Your task to perform on an android device: stop showing notifications on the lock screen Image 0: 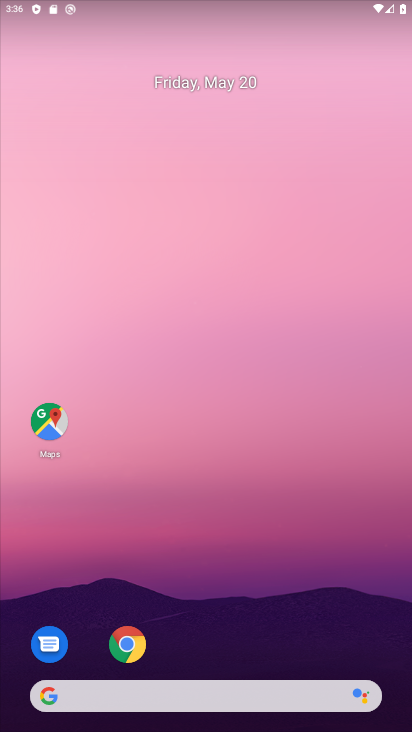
Step 0: drag from (276, 572) to (343, 142)
Your task to perform on an android device: stop showing notifications on the lock screen Image 1: 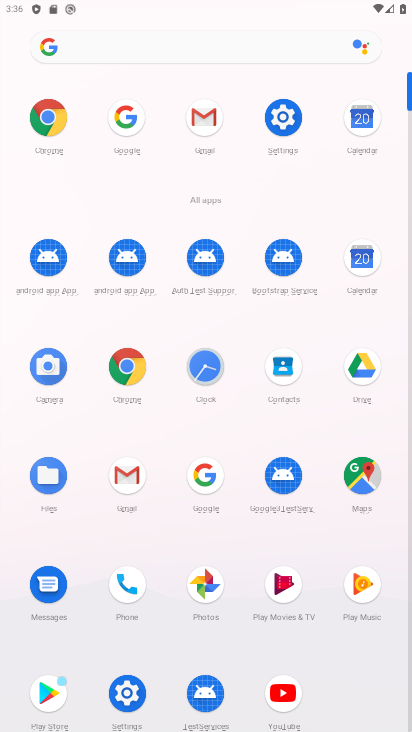
Step 1: click (289, 126)
Your task to perform on an android device: stop showing notifications on the lock screen Image 2: 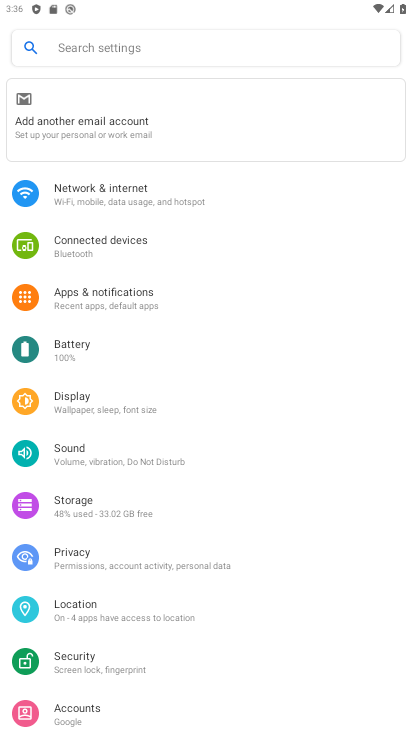
Step 2: click (119, 311)
Your task to perform on an android device: stop showing notifications on the lock screen Image 3: 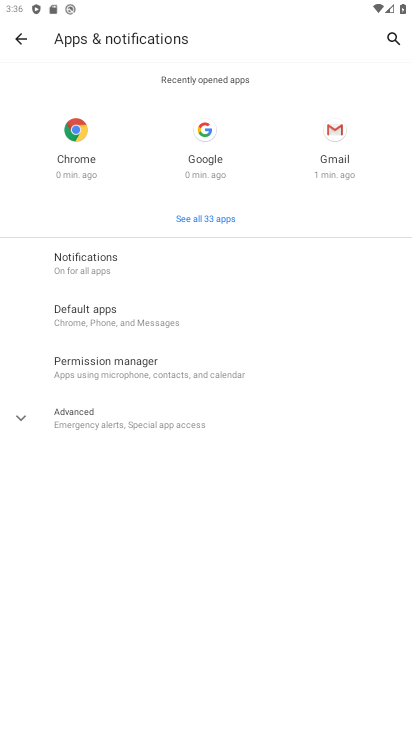
Step 3: click (146, 261)
Your task to perform on an android device: stop showing notifications on the lock screen Image 4: 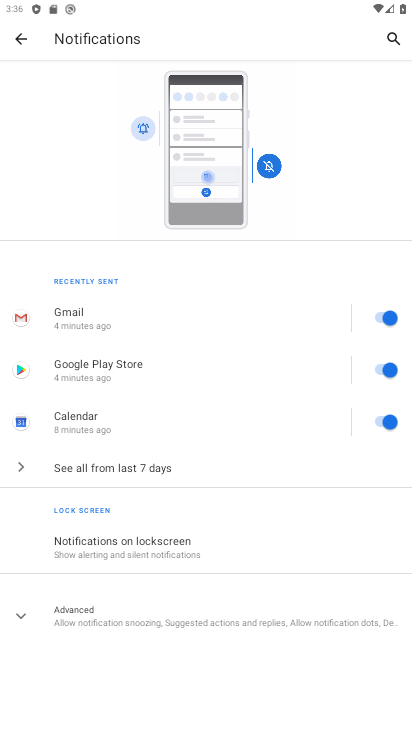
Step 4: click (168, 547)
Your task to perform on an android device: stop showing notifications on the lock screen Image 5: 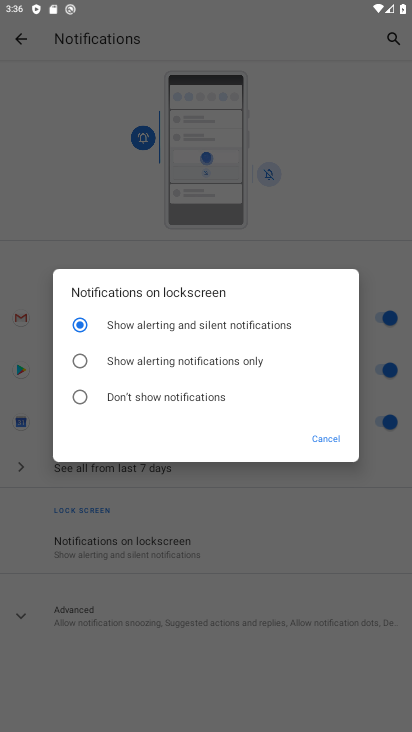
Step 5: click (173, 405)
Your task to perform on an android device: stop showing notifications on the lock screen Image 6: 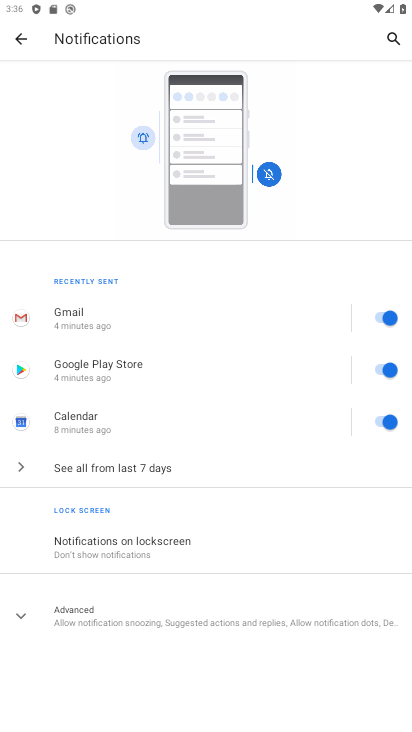
Step 6: task complete